Your task to perform on an android device: Do I have any events this weekend? Image 0: 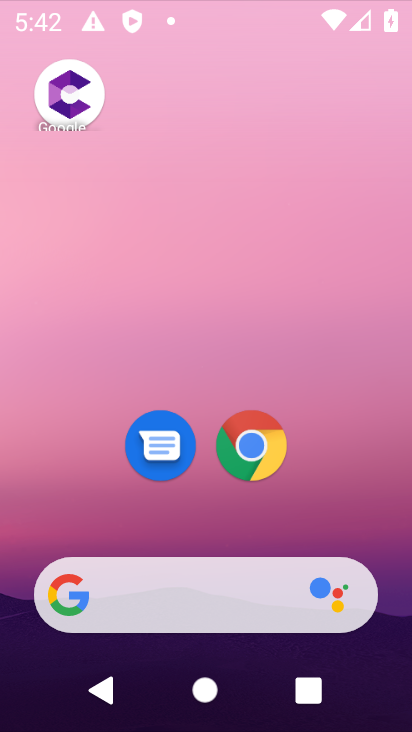
Step 0: click (207, 80)
Your task to perform on an android device: Do I have any events this weekend? Image 1: 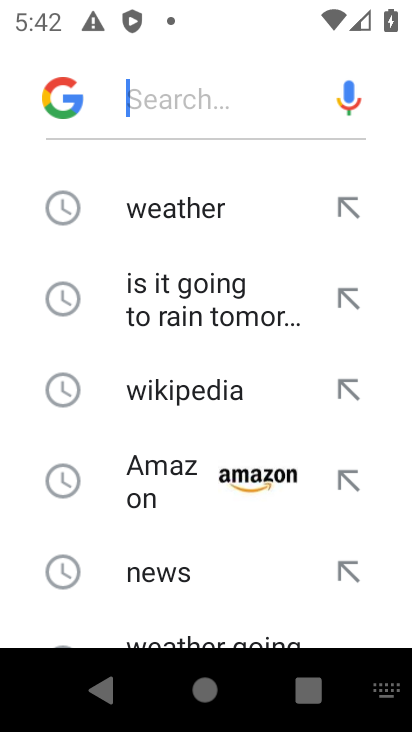
Step 1: press home button
Your task to perform on an android device: Do I have any events this weekend? Image 2: 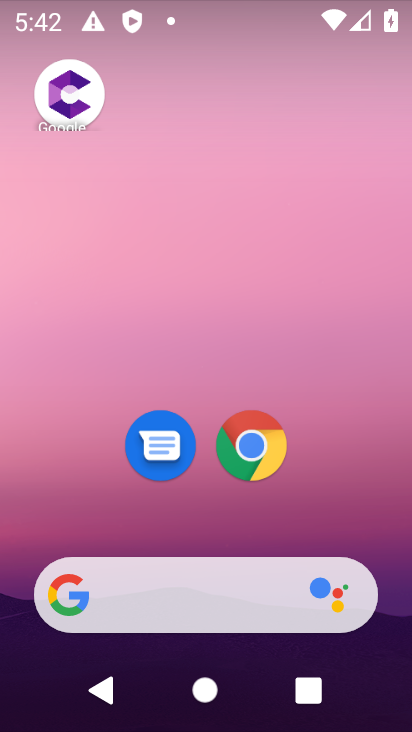
Step 2: drag from (192, 513) to (211, 168)
Your task to perform on an android device: Do I have any events this weekend? Image 3: 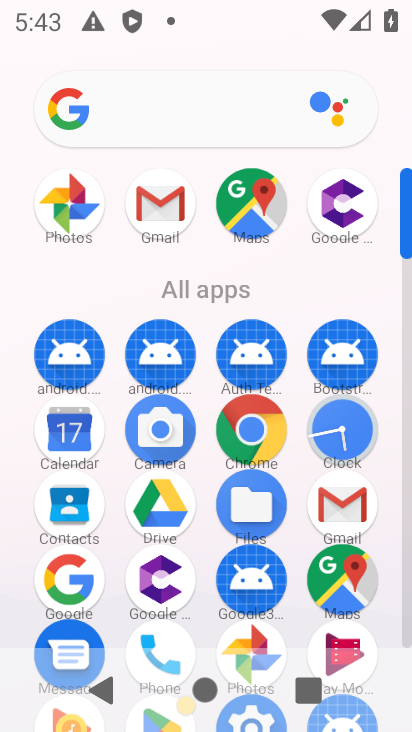
Step 3: click (65, 436)
Your task to perform on an android device: Do I have any events this weekend? Image 4: 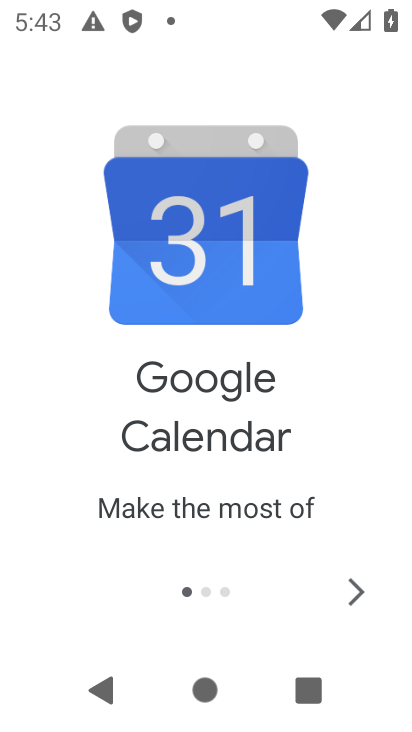
Step 4: click (356, 593)
Your task to perform on an android device: Do I have any events this weekend? Image 5: 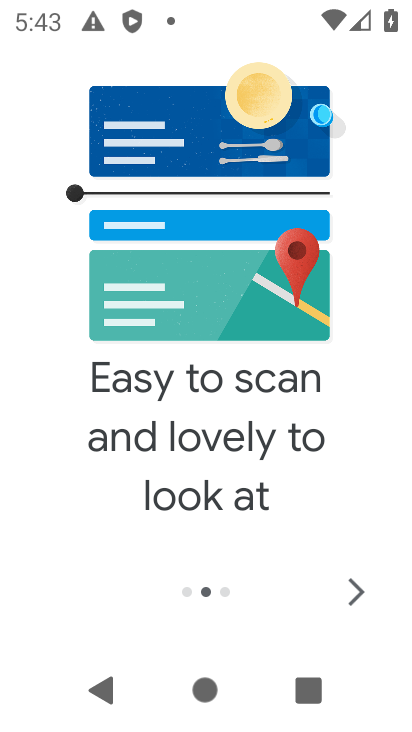
Step 5: click (357, 593)
Your task to perform on an android device: Do I have any events this weekend? Image 6: 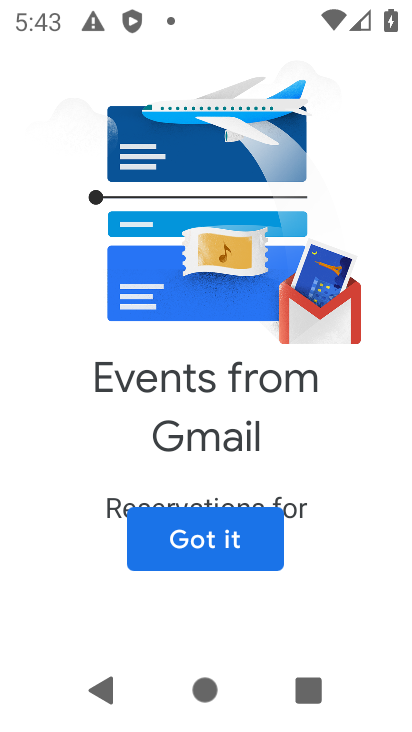
Step 6: click (159, 554)
Your task to perform on an android device: Do I have any events this weekend? Image 7: 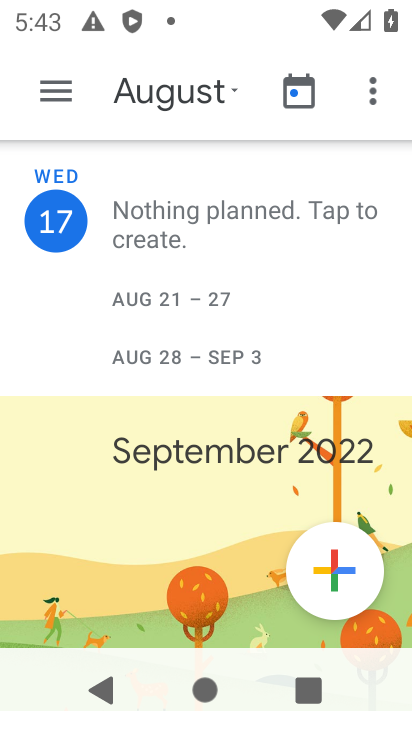
Step 7: click (222, 82)
Your task to perform on an android device: Do I have any events this weekend? Image 8: 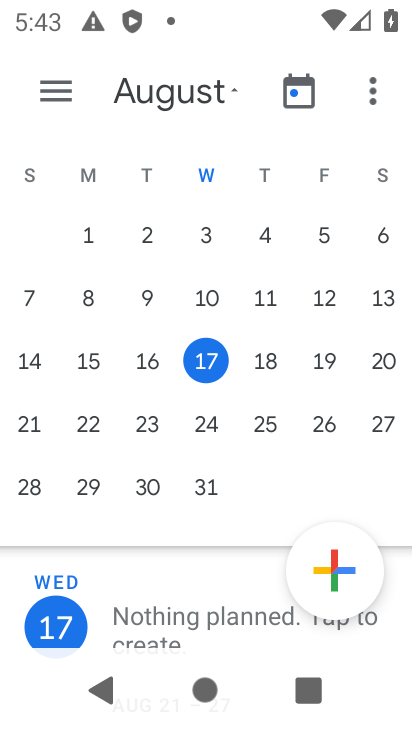
Step 8: click (381, 366)
Your task to perform on an android device: Do I have any events this weekend? Image 9: 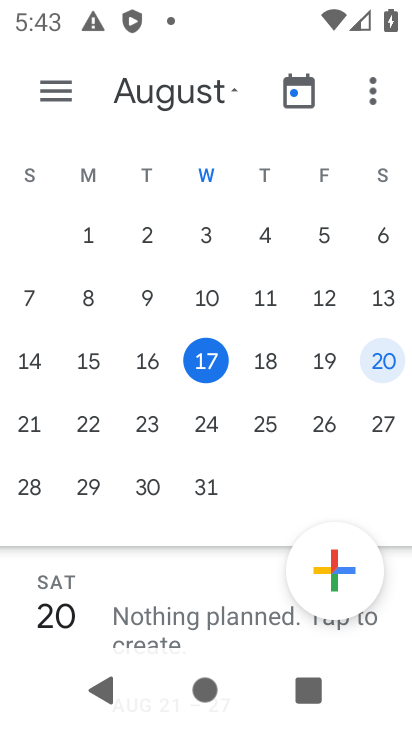
Step 9: task complete